Your task to perform on an android device: Open internet settings Image 0: 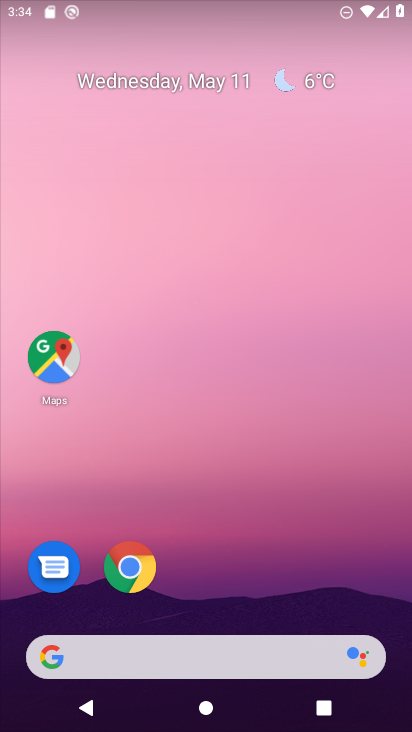
Step 0: drag from (313, 555) to (274, 183)
Your task to perform on an android device: Open internet settings Image 1: 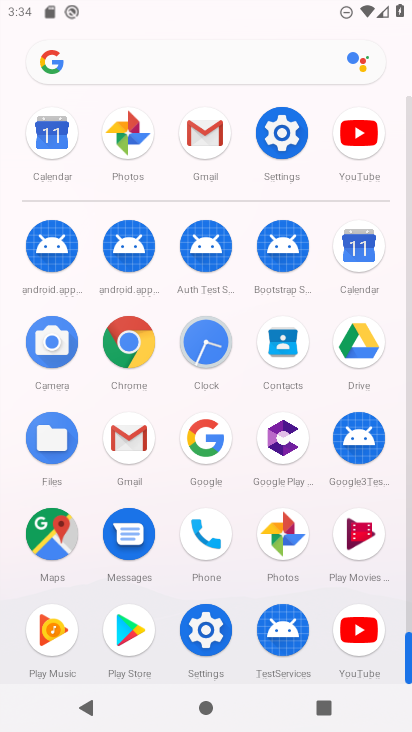
Step 1: click (212, 630)
Your task to perform on an android device: Open internet settings Image 2: 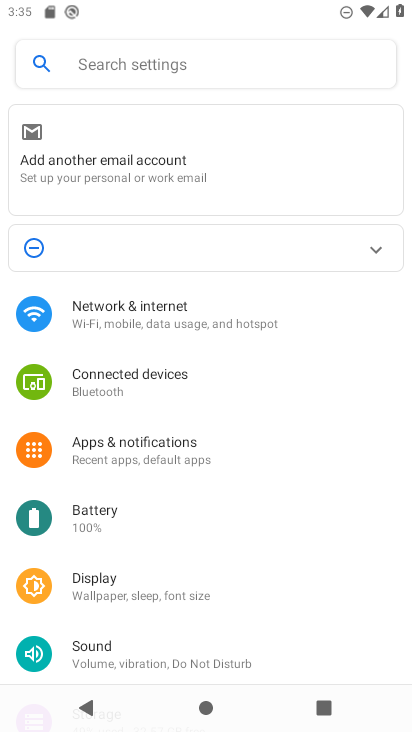
Step 2: click (120, 319)
Your task to perform on an android device: Open internet settings Image 3: 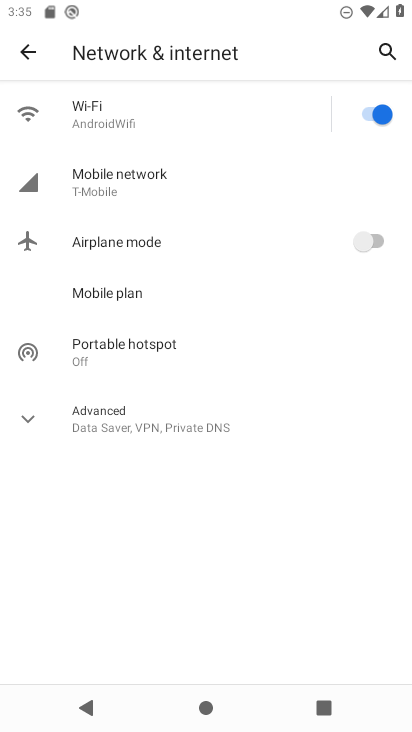
Step 3: task complete